Your task to perform on an android device: Open display settings Image 0: 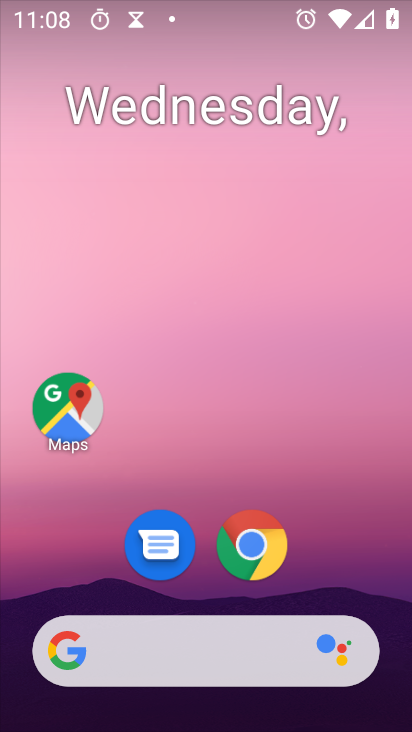
Step 0: press home button
Your task to perform on an android device: Open display settings Image 1: 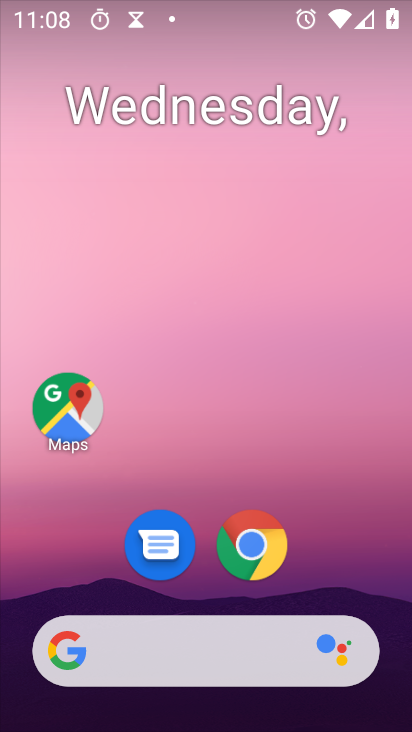
Step 1: drag from (203, 576) to (315, 91)
Your task to perform on an android device: Open display settings Image 2: 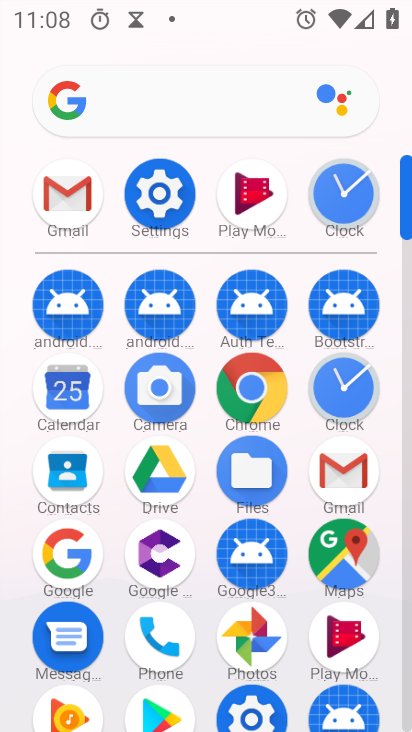
Step 2: click (173, 198)
Your task to perform on an android device: Open display settings Image 3: 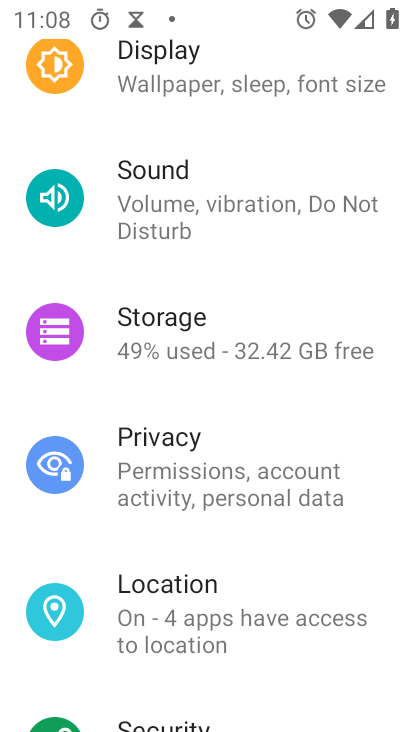
Step 3: click (183, 72)
Your task to perform on an android device: Open display settings Image 4: 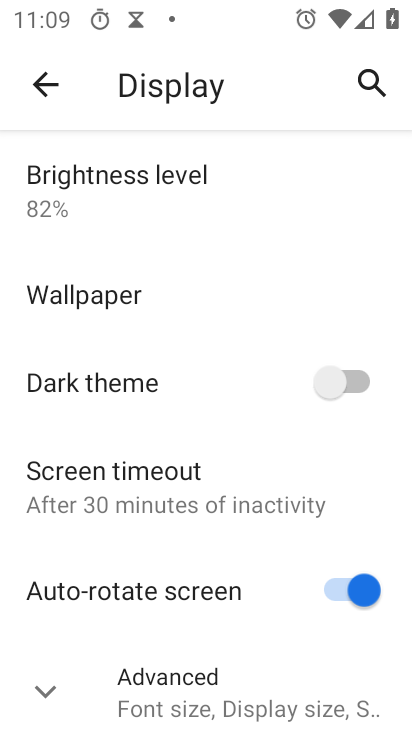
Step 4: task complete